Your task to perform on an android device: toggle priority inbox in the gmail app Image 0: 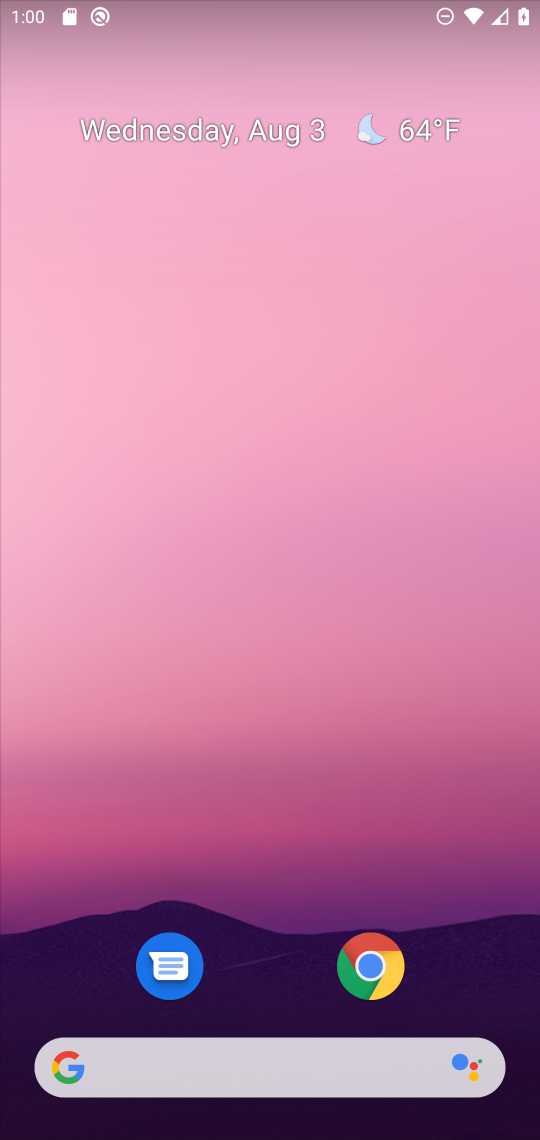
Step 0: drag from (253, 958) to (253, 202)
Your task to perform on an android device: toggle priority inbox in the gmail app Image 1: 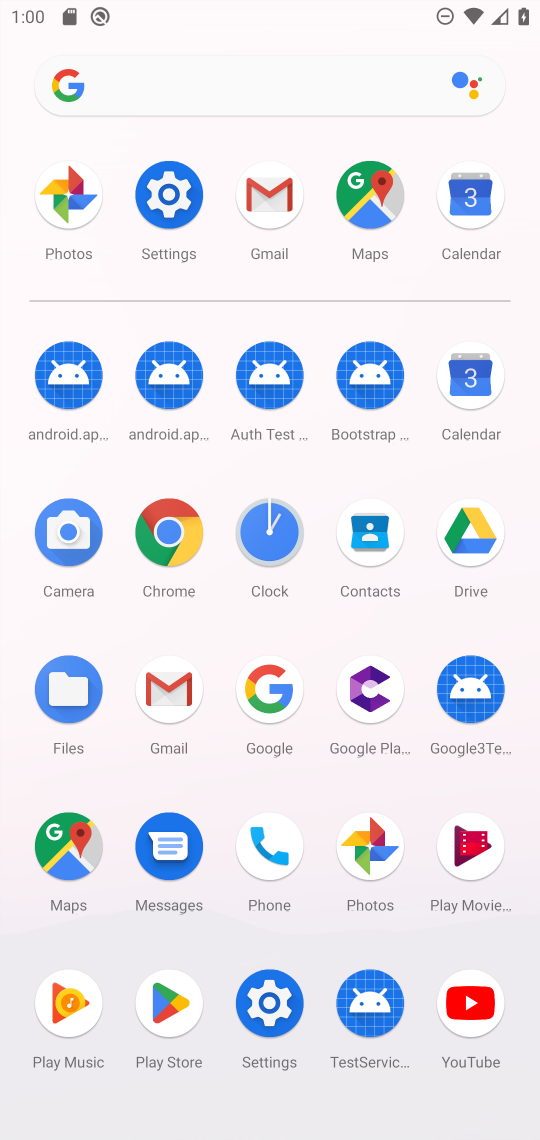
Step 1: click (258, 208)
Your task to perform on an android device: toggle priority inbox in the gmail app Image 2: 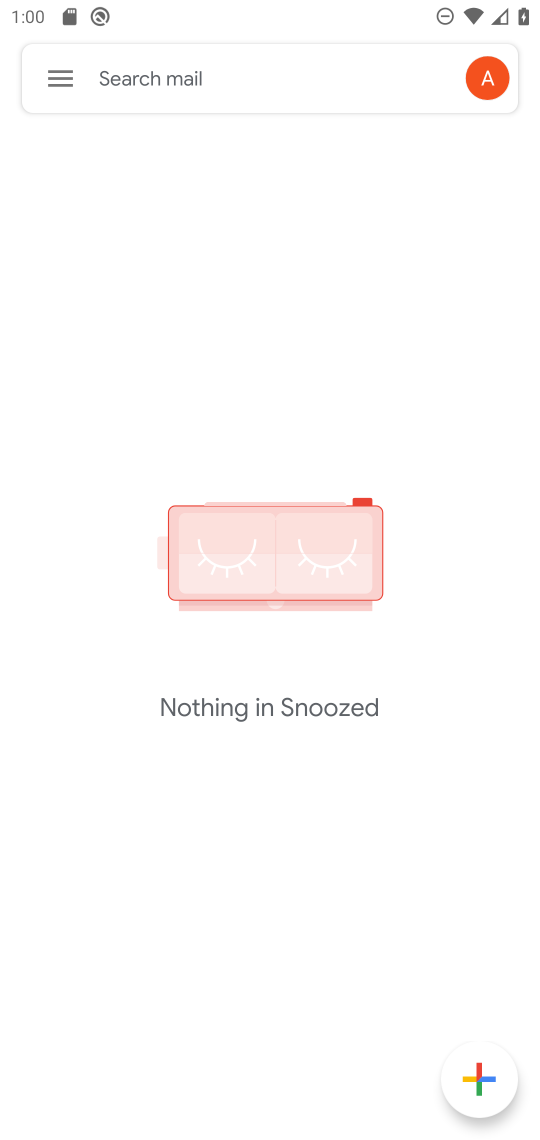
Step 2: click (74, 75)
Your task to perform on an android device: toggle priority inbox in the gmail app Image 3: 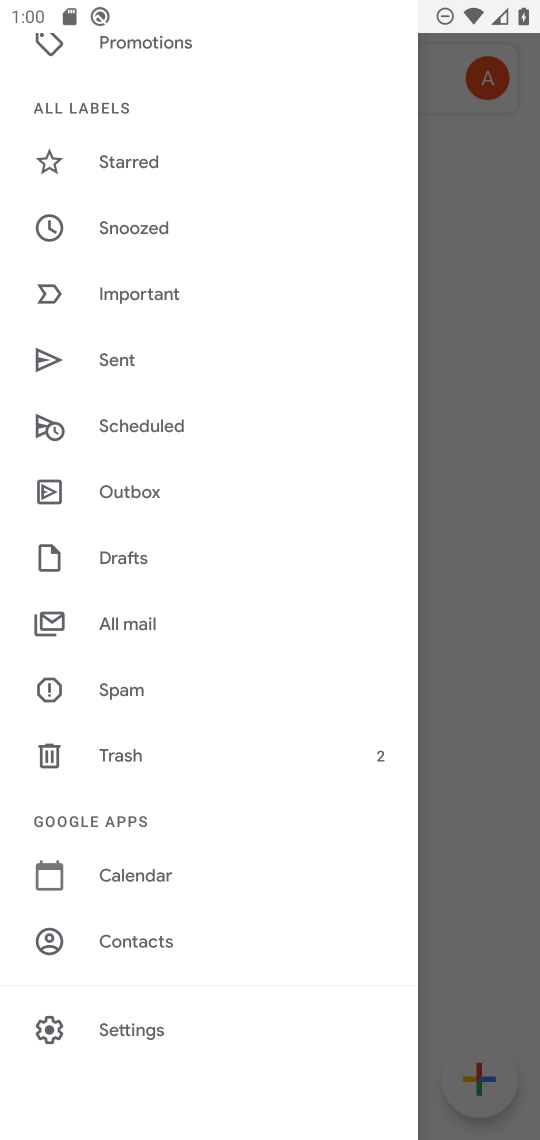
Step 3: click (152, 1024)
Your task to perform on an android device: toggle priority inbox in the gmail app Image 4: 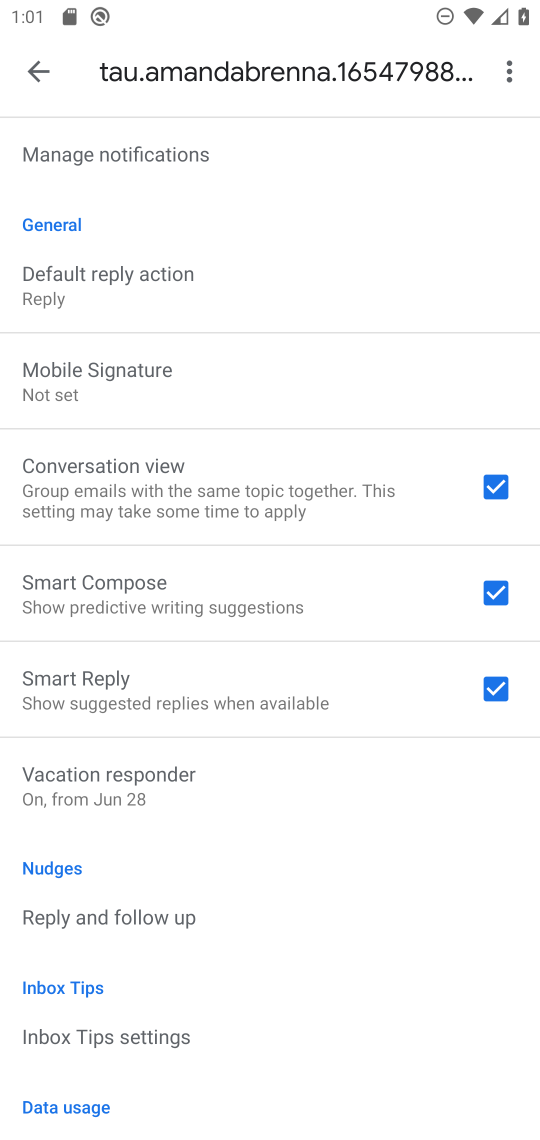
Step 4: drag from (187, 314) to (241, 945)
Your task to perform on an android device: toggle priority inbox in the gmail app Image 5: 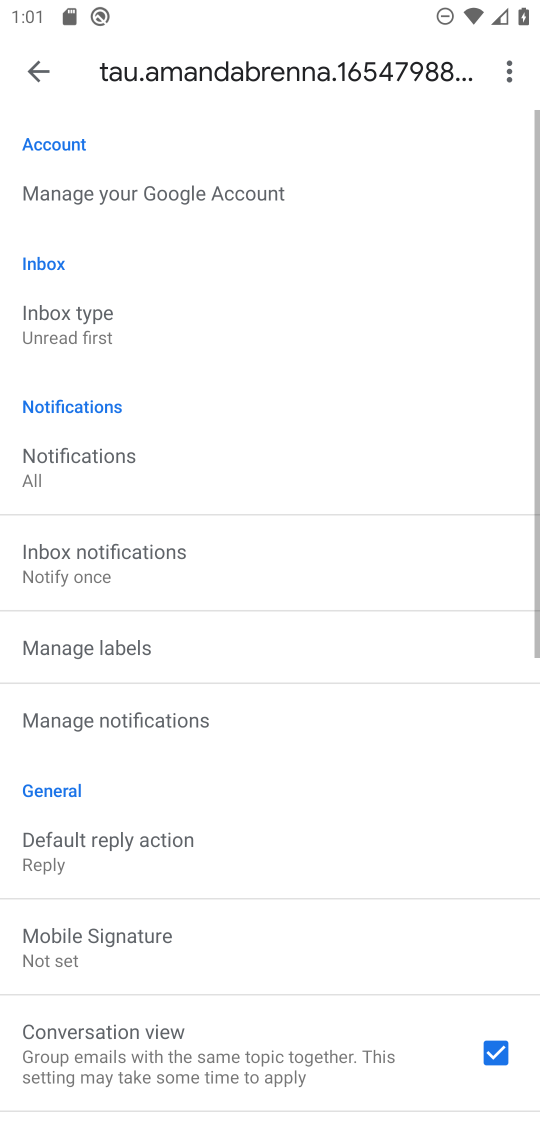
Step 5: drag from (139, 223) to (213, 798)
Your task to perform on an android device: toggle priority inbox in the gmail app Image 6: 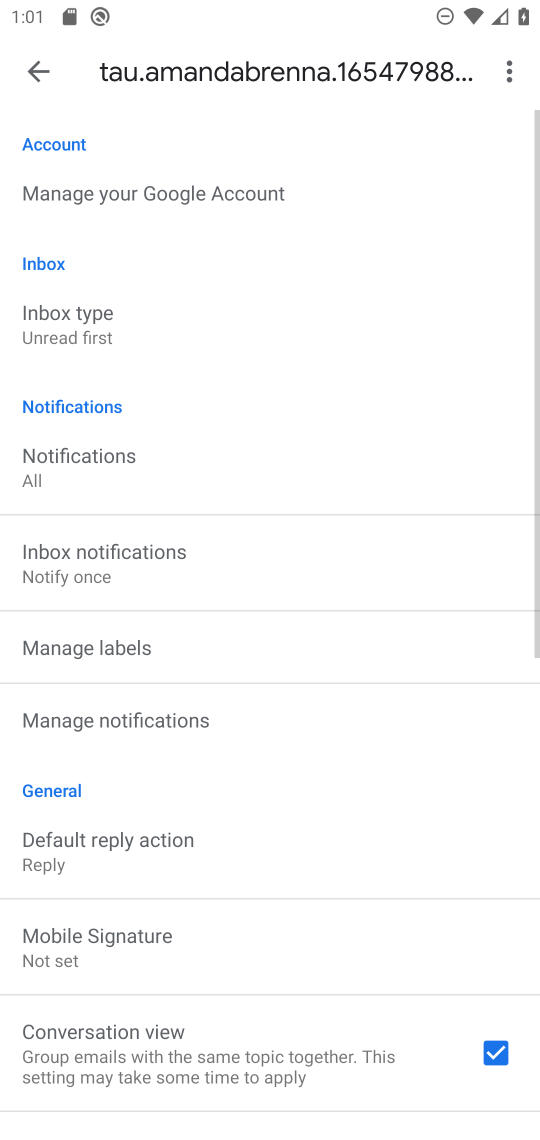
Step 6: drag from (283, 349) to (327, 777)
Your task to perform on an android device: toggle priority inbox in the gmail app Image 7: 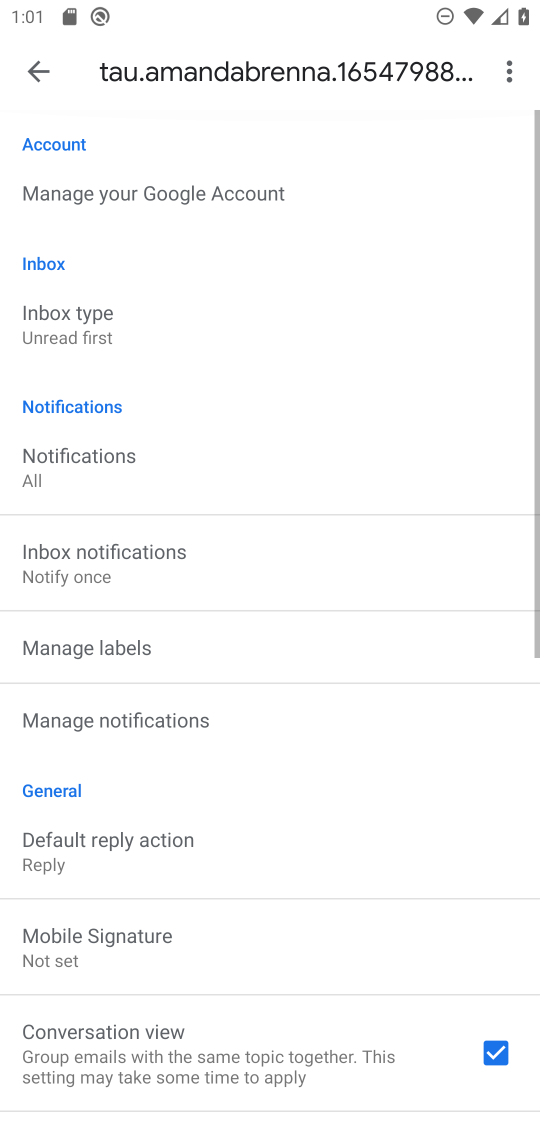
Step 7: click (145, 319)
Your task to perform on an android device: toggle priority inbox in the gmail app Image 8: 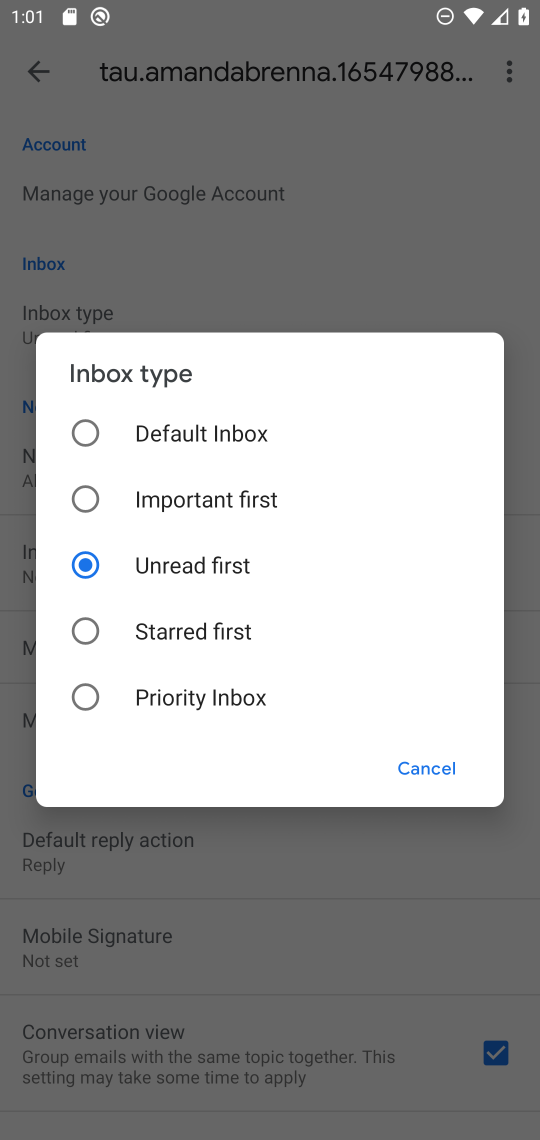
Step 8: click (149, 706)
Your task to perform on an android device: toggle priority inbox in the gmail app Image 9: 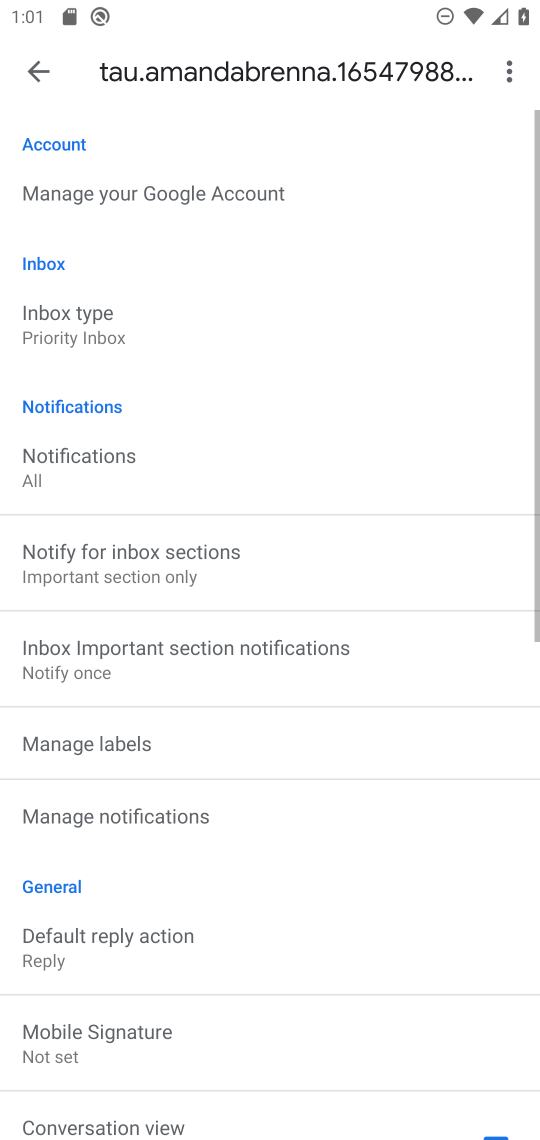
Step 9: task complete